Your task to perform on an android device: Toggle the flashlight Image 0: 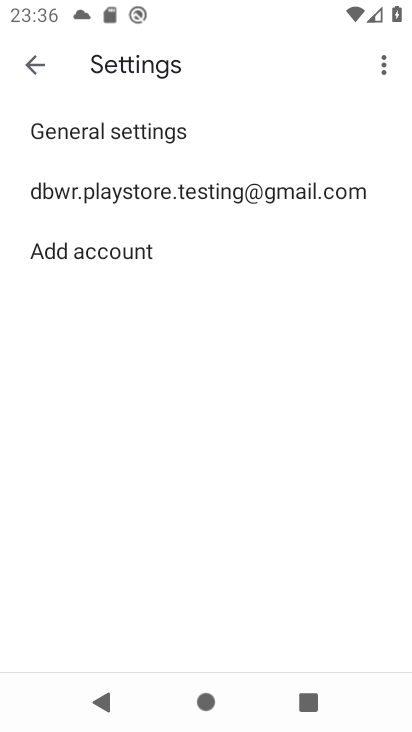
Step 0: press home button
Your task to perform on an android device: Toggle the flashlight Image 1: 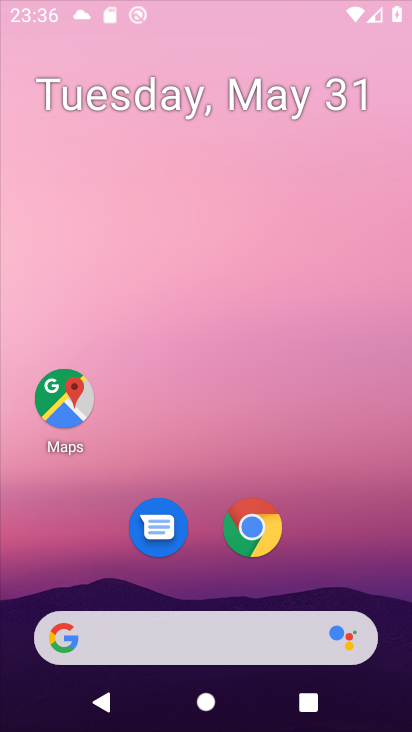
Step 1: task complete